Your task to perform on an android device: toggle notifications settings in the gmail app Image 0: 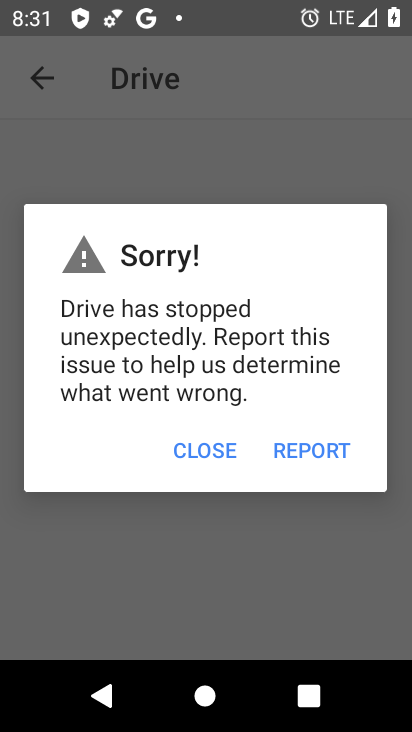
Step 0: press home button
Your task to perform on an android device: toggle notifications settings in the gmail app Image 1: 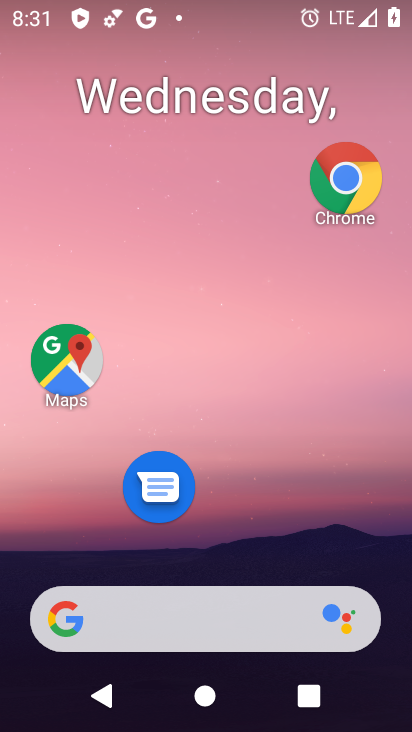
Step 1: drag from (235, 616) to (328, 33)
Your task to perform on an android device: toggle notifications settings in the gmail app Image 2: 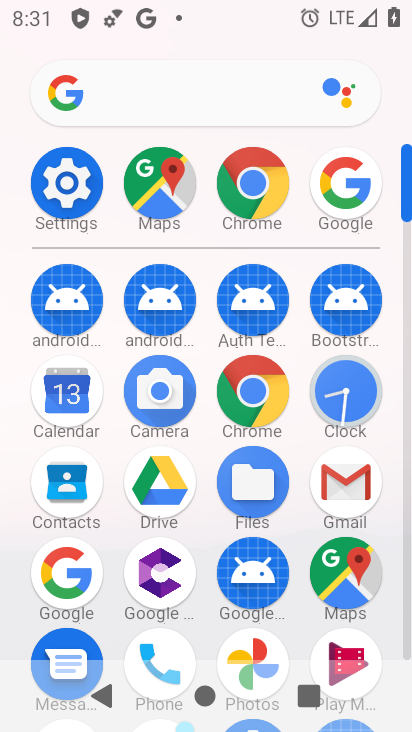
Step 2: click (350, 479)
Your task to perform on an android device: toggle notifications settings in the gmail app Image 3: 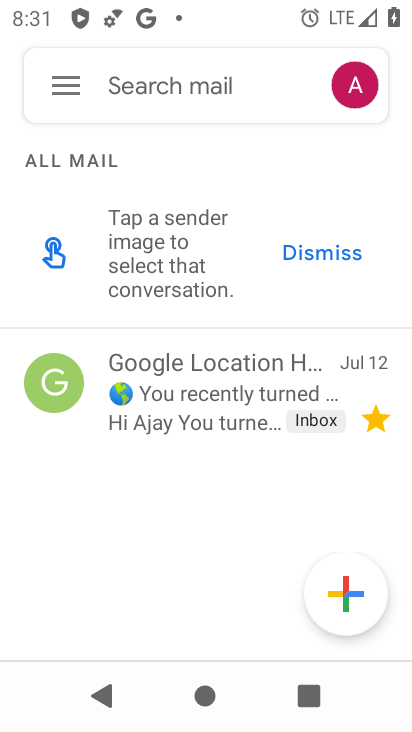
Step 3: click (80, 80)
Your task to perform on an android device: toggle notifications settings in the gmail app Image 4: 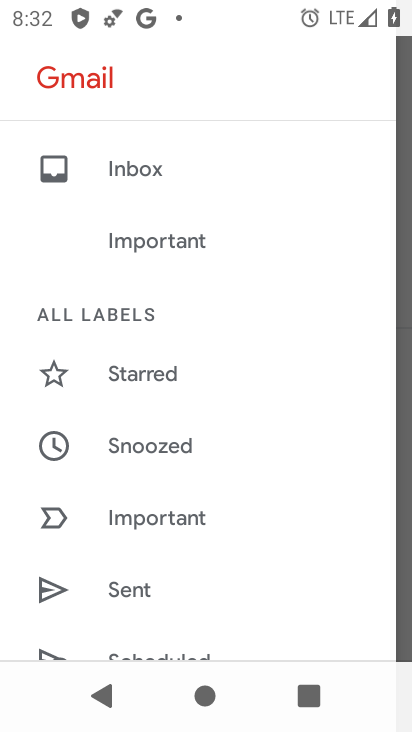
Step 4: drag from (164, 561) to (164, 154)
Your task to perform on an android device: toggle notifications settings in the gmail app Image 5: 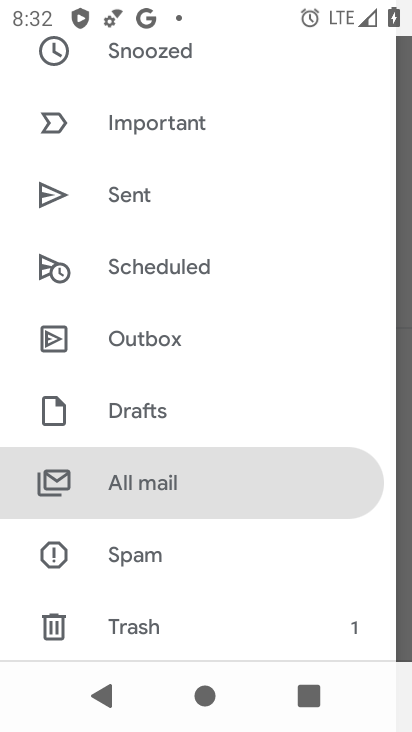
Step 5: drag from (125, 579) to (202, 145)
Your task to perform on an android device: toggle notifications settings in the gmail app Image 6: 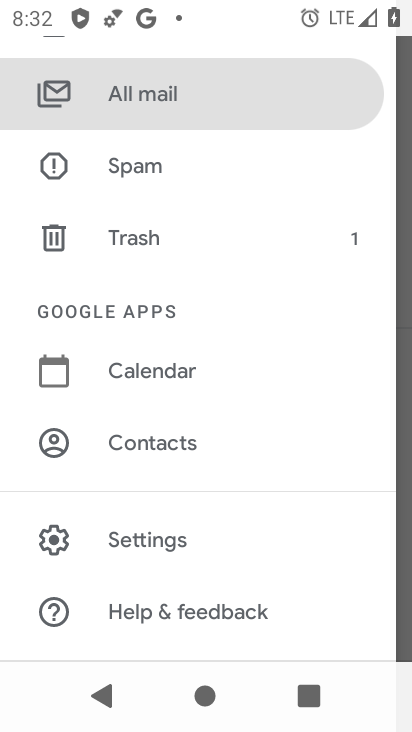
Step 6: click (148, 552)
Your task to perform on an android device: toggle notifications settings in the gmail app Image 7: 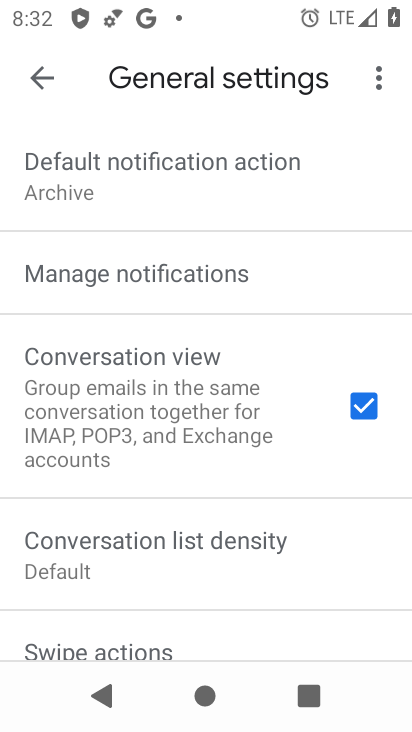
Step 7: click (234, 276)
Your task to perform on an android device: toggle notifications settings in the gmail app Image 8: 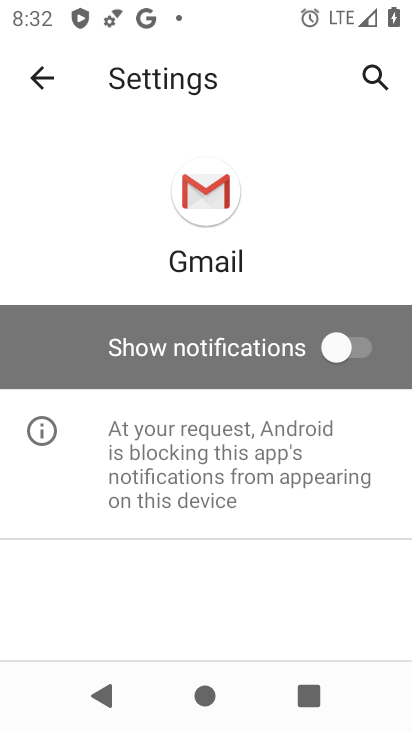
Step 8: click (361, 358)
Your task to perform on an android device: toggle notifications settings in the gmail app Image 9: 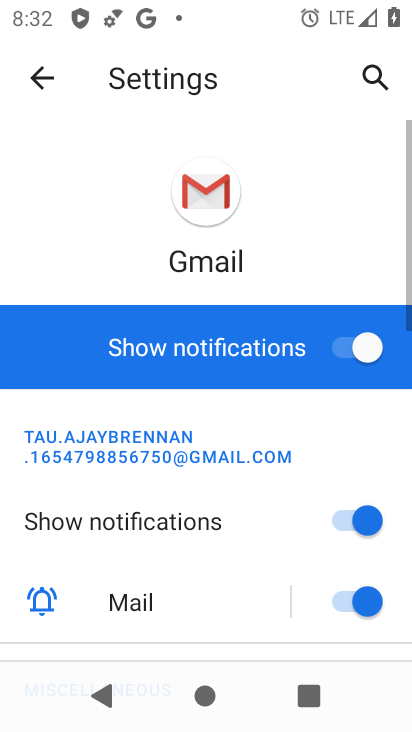
Step 9: task complete